Your task to perform on an android device: Check the news Image 0: 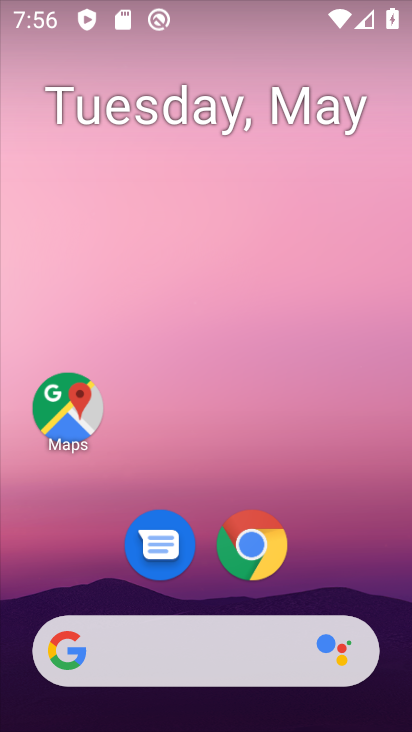
Step 0: drag from (213, 584) to (220, 249)
Your task to perform on an android device: Check the news Image 1: 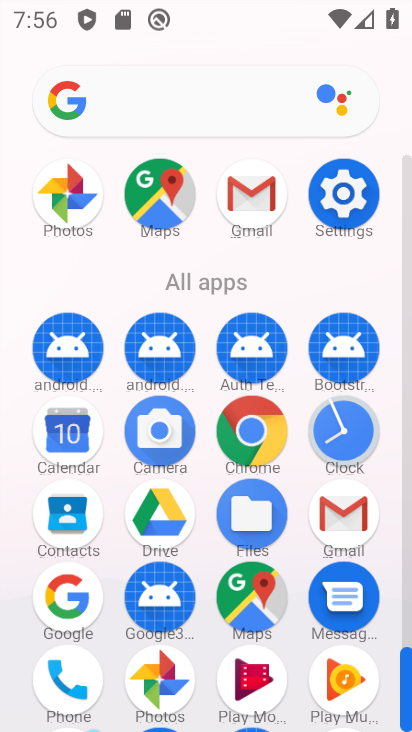
Step 1: click (78, 581)
Your task to perform on an android device: Check the news Image 2: 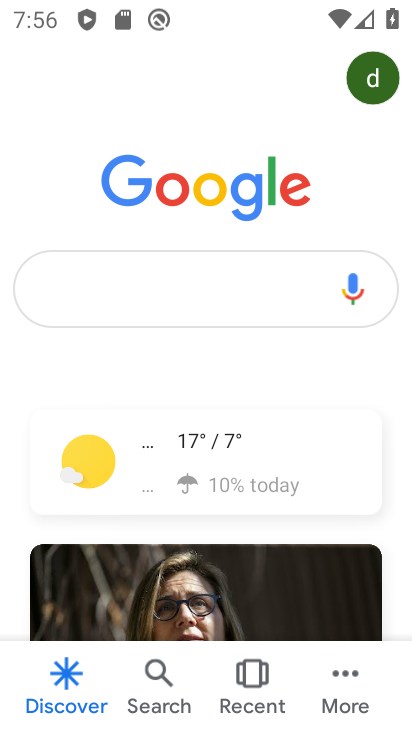
Step 2: click (164, 300)
Your task to perform on an android device: Check the news Image 3: 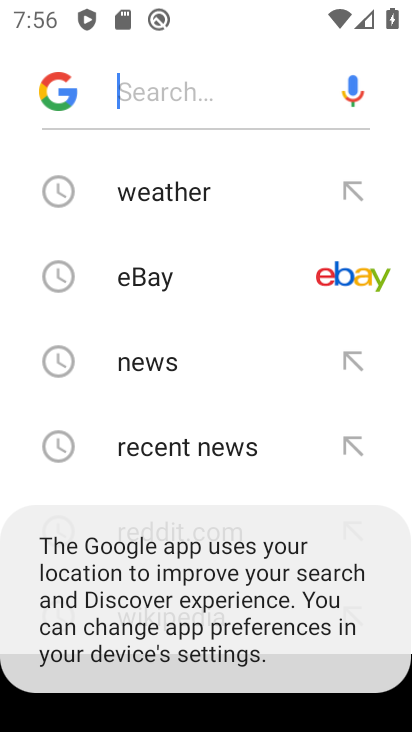
Step 3: click (162, 363)
Your task to perform on an android device: Check the news Image 4: 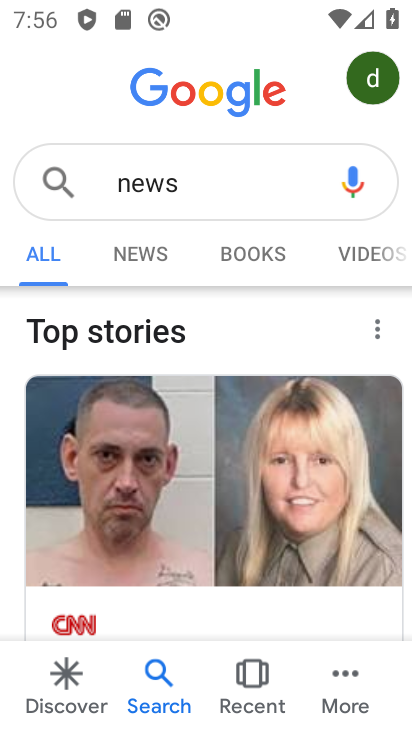
Step 4: click (130, 256)
Your task to perform on an android device: Check the news Image 5: 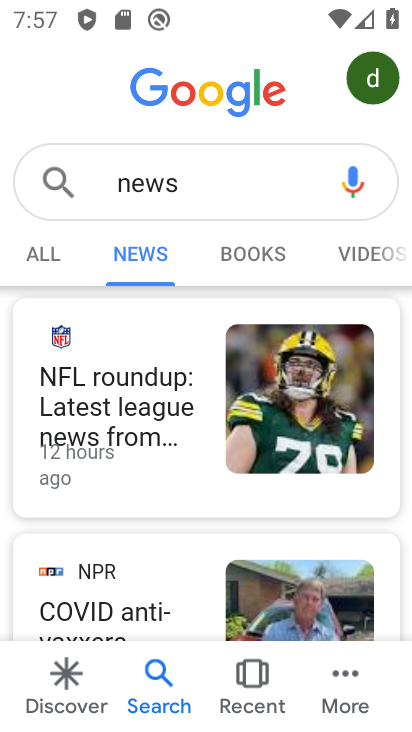
Step 5: task complete